Your task to perform on an android device: Go to wifi settings Image 0: 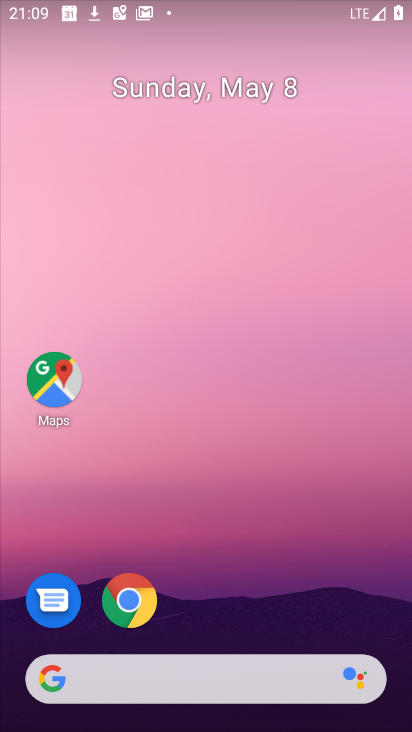
Step 0: drag from (188, 713) to (303, 325)
Your task to perform on an android device: Go to wifi settings Image 1: 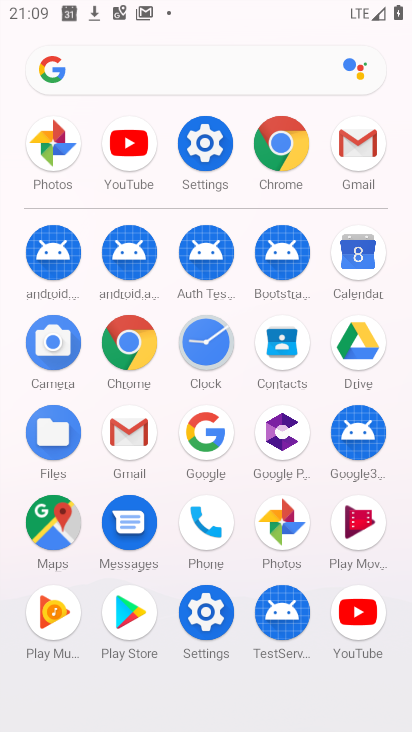
Step 1: click (203, 154)
Your task to perform on an android device: Go to wifi settings Image 2: 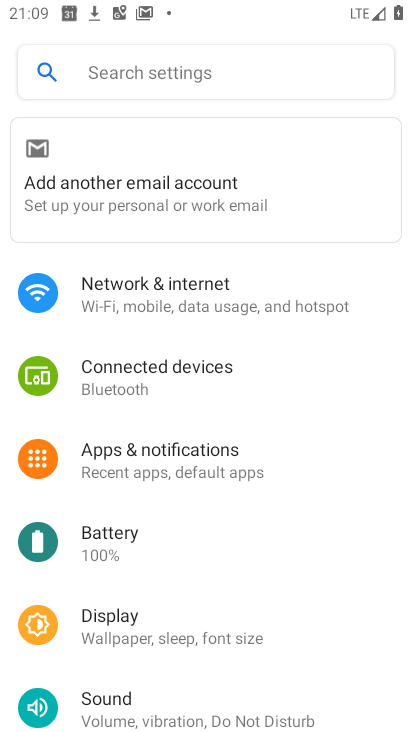
Step 2: click (185, 287)
Your task to perform on an android device: Go to wifi settings Image 3: 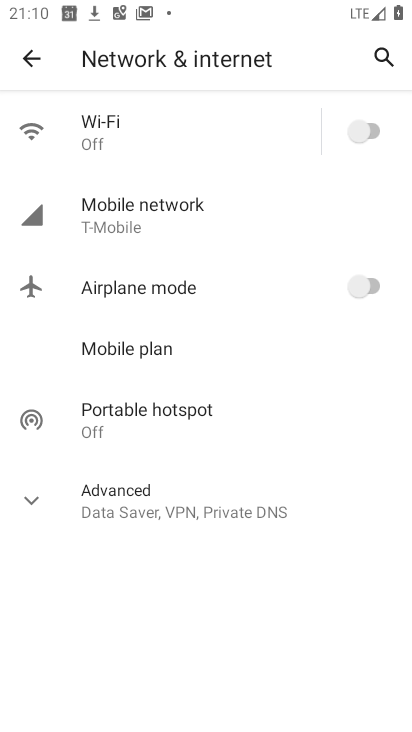
Step 3: task complete